Your task to perform on an android device: Open Android settings Image 0: 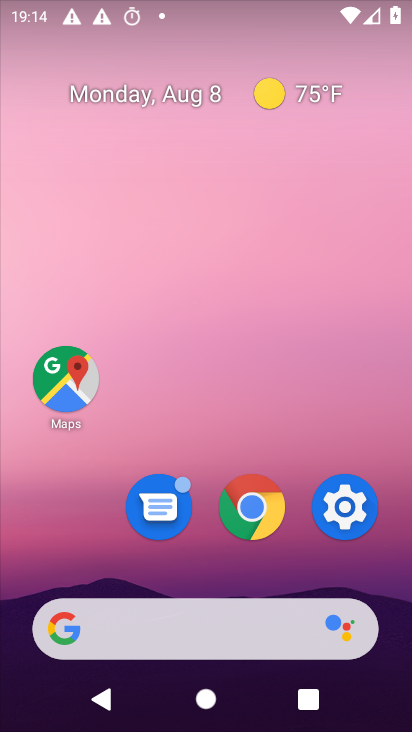
Step 0: press home button
Your task to perform on an android device: Open Android settings Image 1: 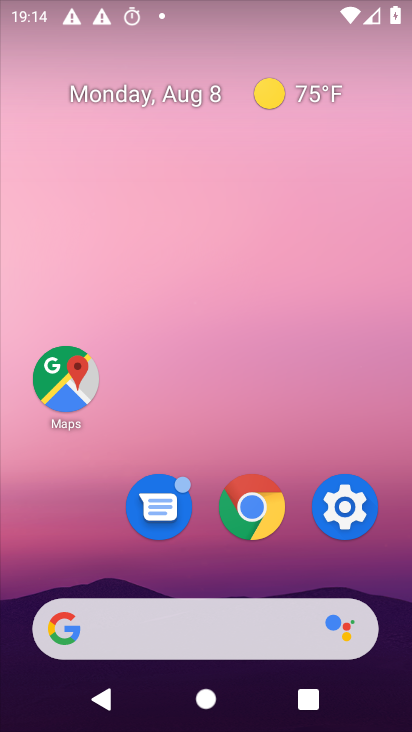
Step 1: drag from (291, 655) to (301, 78)
Your task to perform on an android device: Open Android settings Image 2: 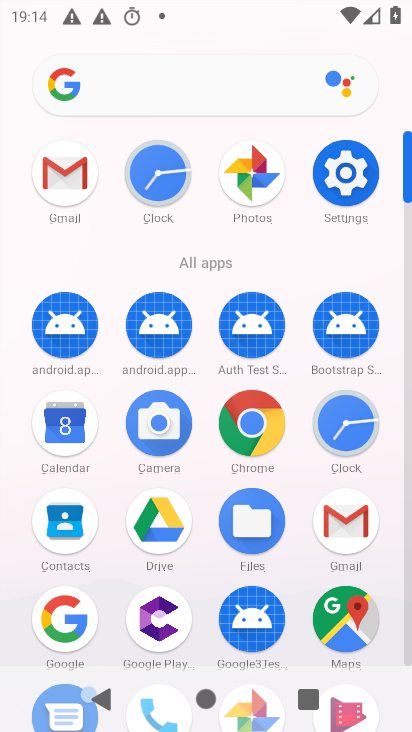
Step 2: click (341, 186)
Your task to perform on an android device: Open Android settings Image 3: 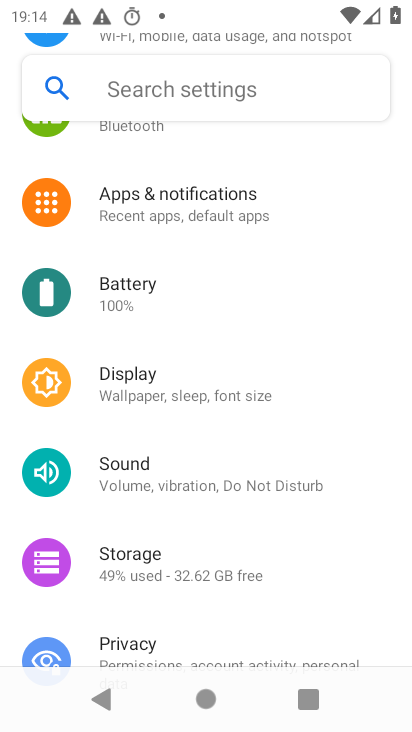
Step 3: click (170, 91)
Your task to perform on an android device: Open Android settings Image 4: 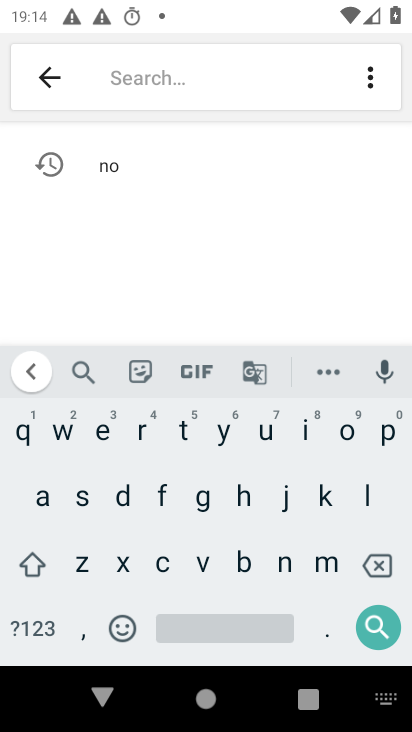
Step 4: click (29, 507)
Your task to perform on an android device: Open Android settings Image 5: 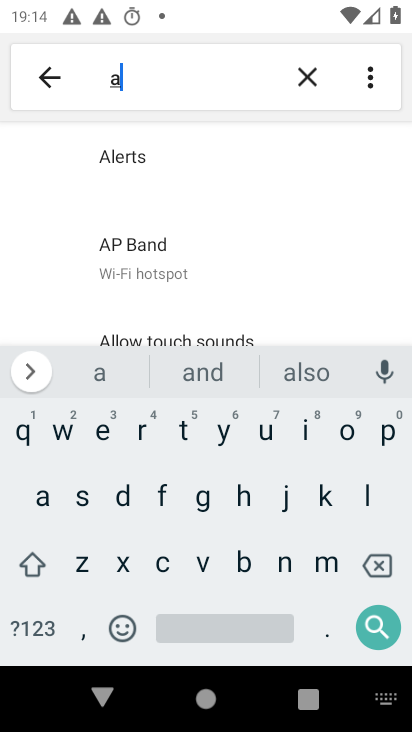
Step 5: click (283, 572)
Your task to perform on an android device: Open Android settings Image 6: 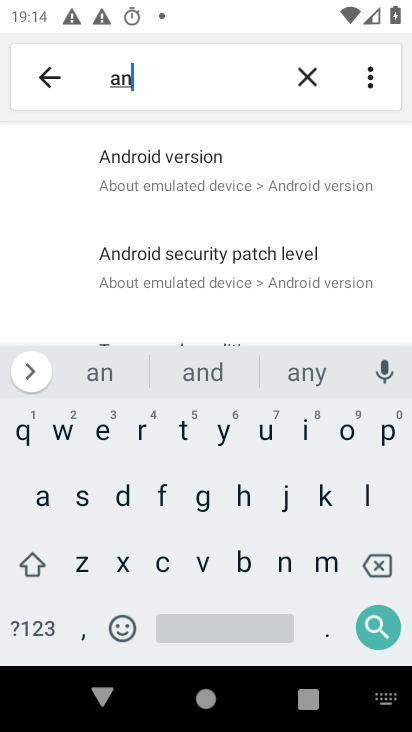
Step 6: click (159, 156)
Your task to perform on an android device: Open Android settings Image 7: 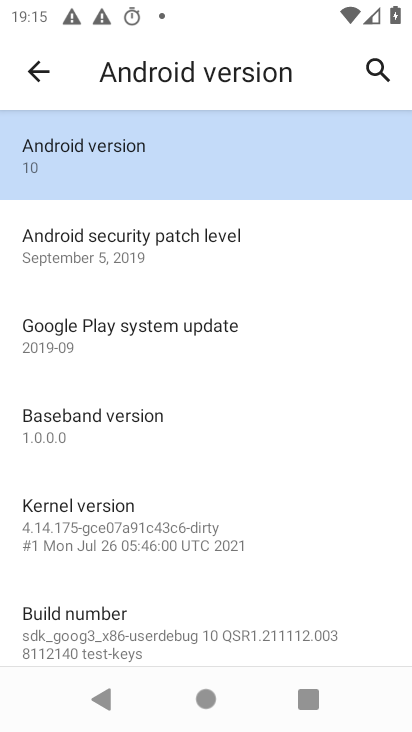
Step 7: click (151, 159)
Your task to perform on an android device: Open Android settings Image 8: 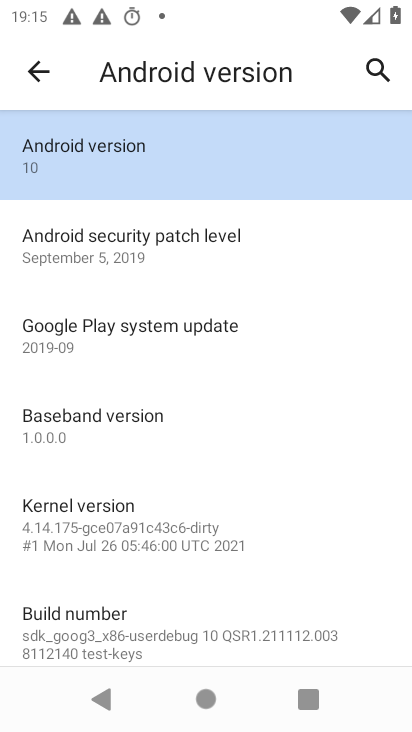
Step 8: task complete